Your task to perform on an android device: Add razer blade to the cart on newegg.com Image 0: 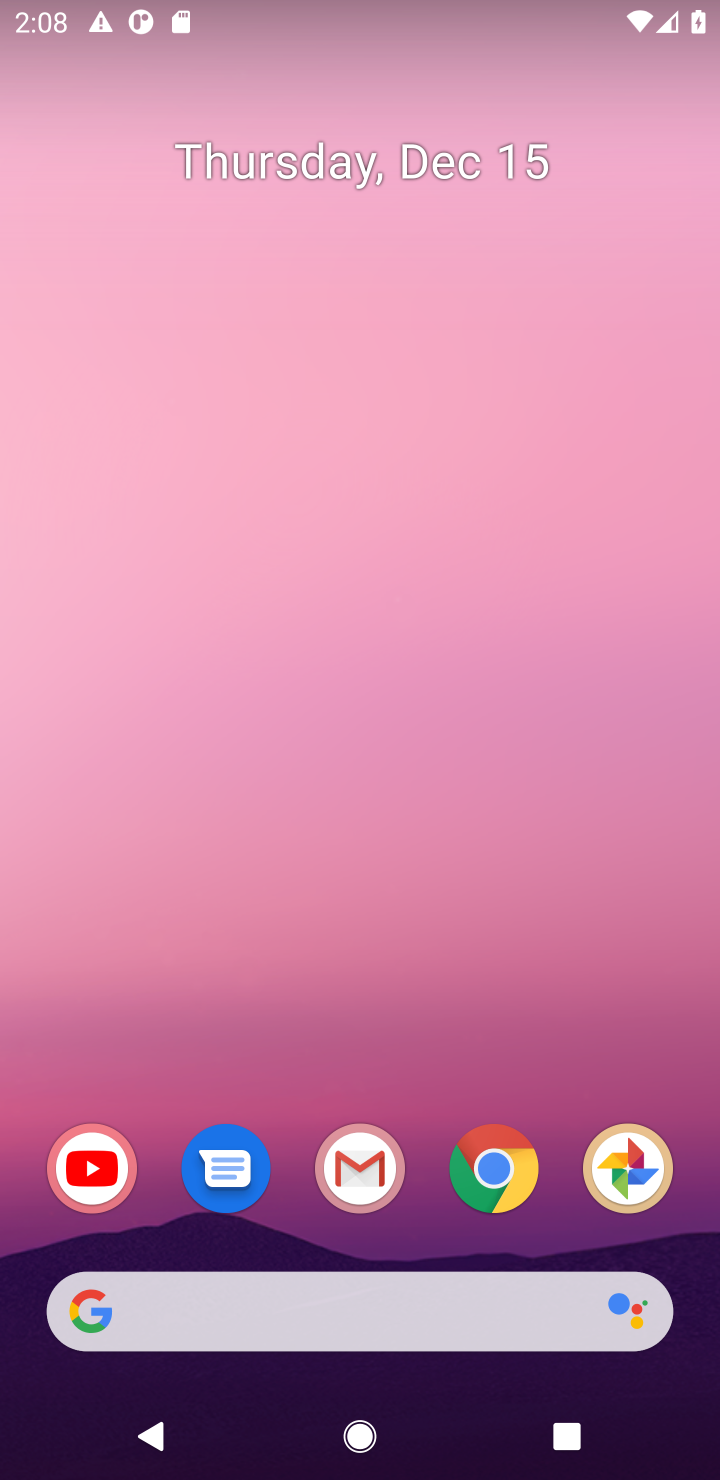
Step 0: click (492, 1189)
Your task to perform on an android device: Add razer blade to the cart on newegg.com Image 1: 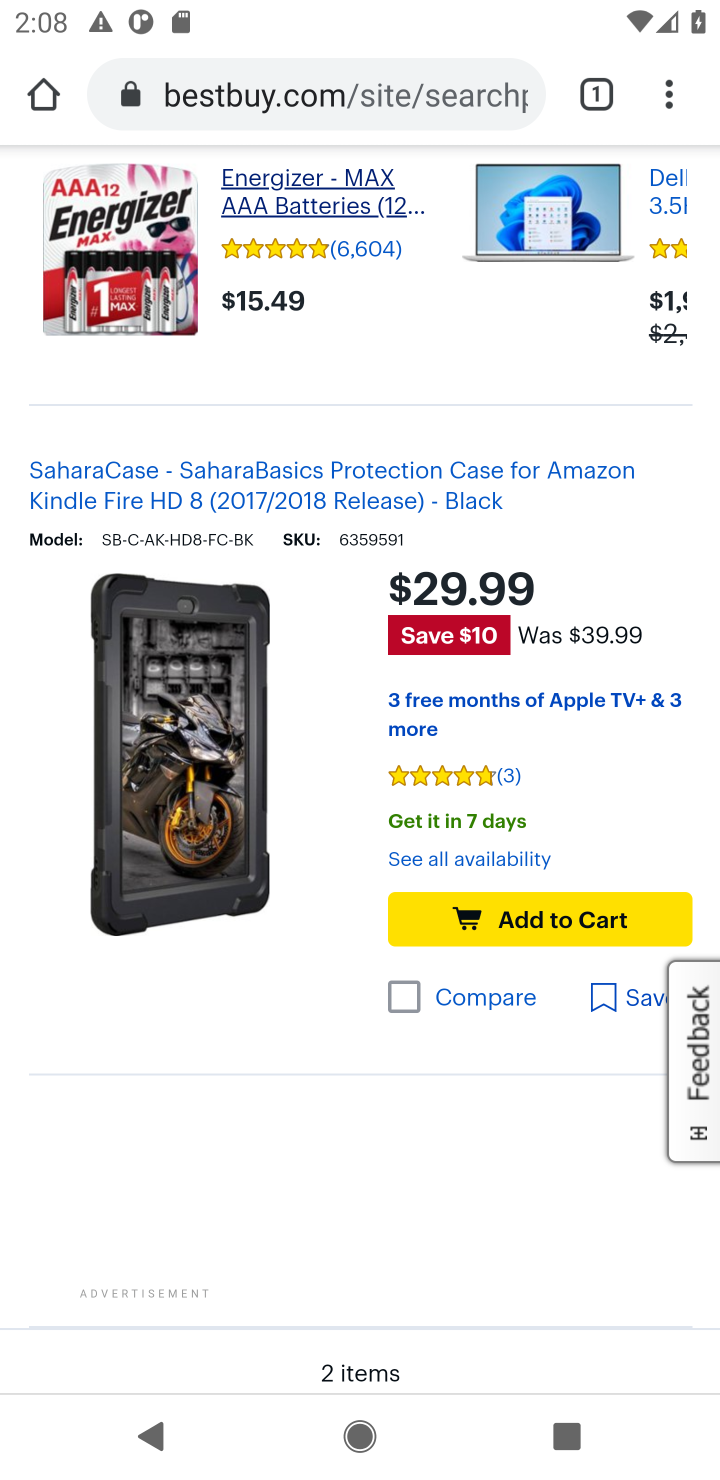
Step 1: click (263, 92)
Your task to perform on an android device: Add razer blade to the cart on newegg.com Image 2: 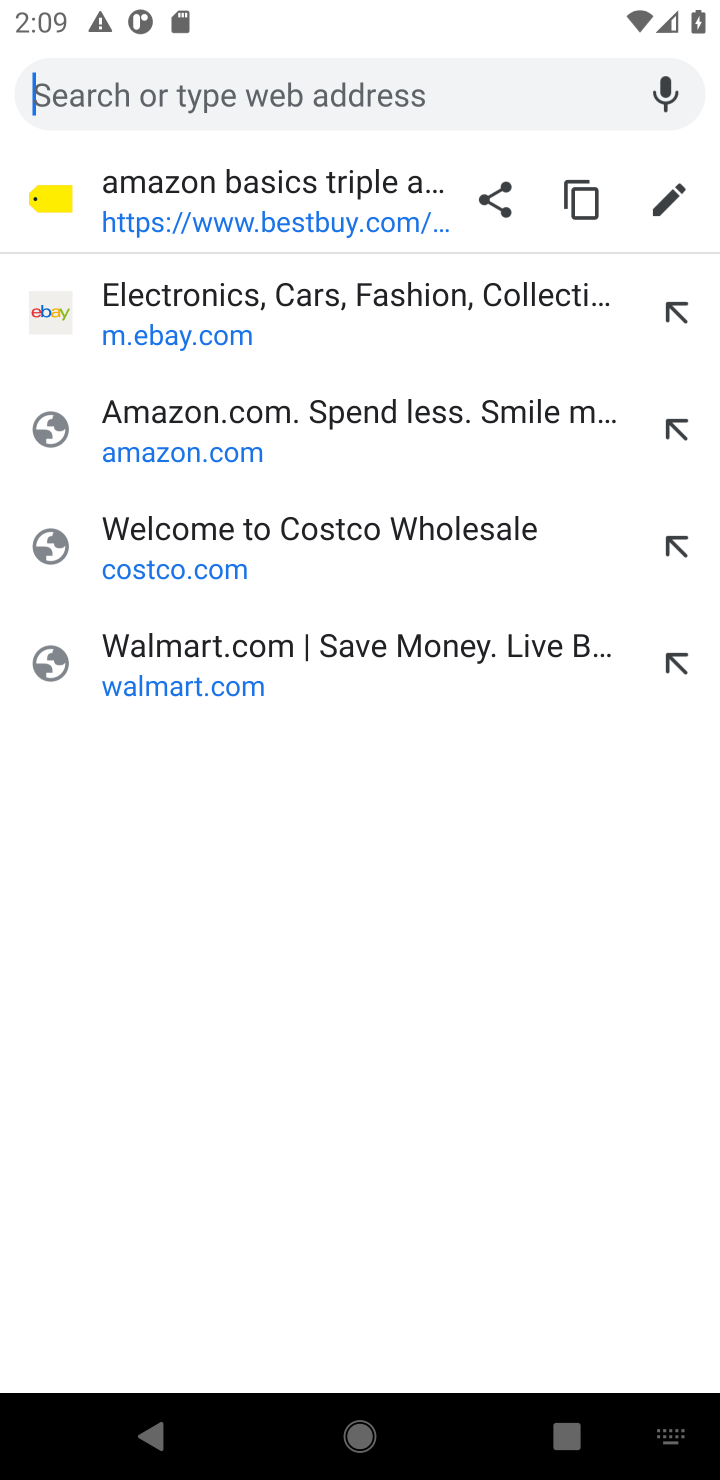
Step 2: type "newegg"
Your task to perform on an android device: Add razer blade to the cart on newegg.com Image 3: 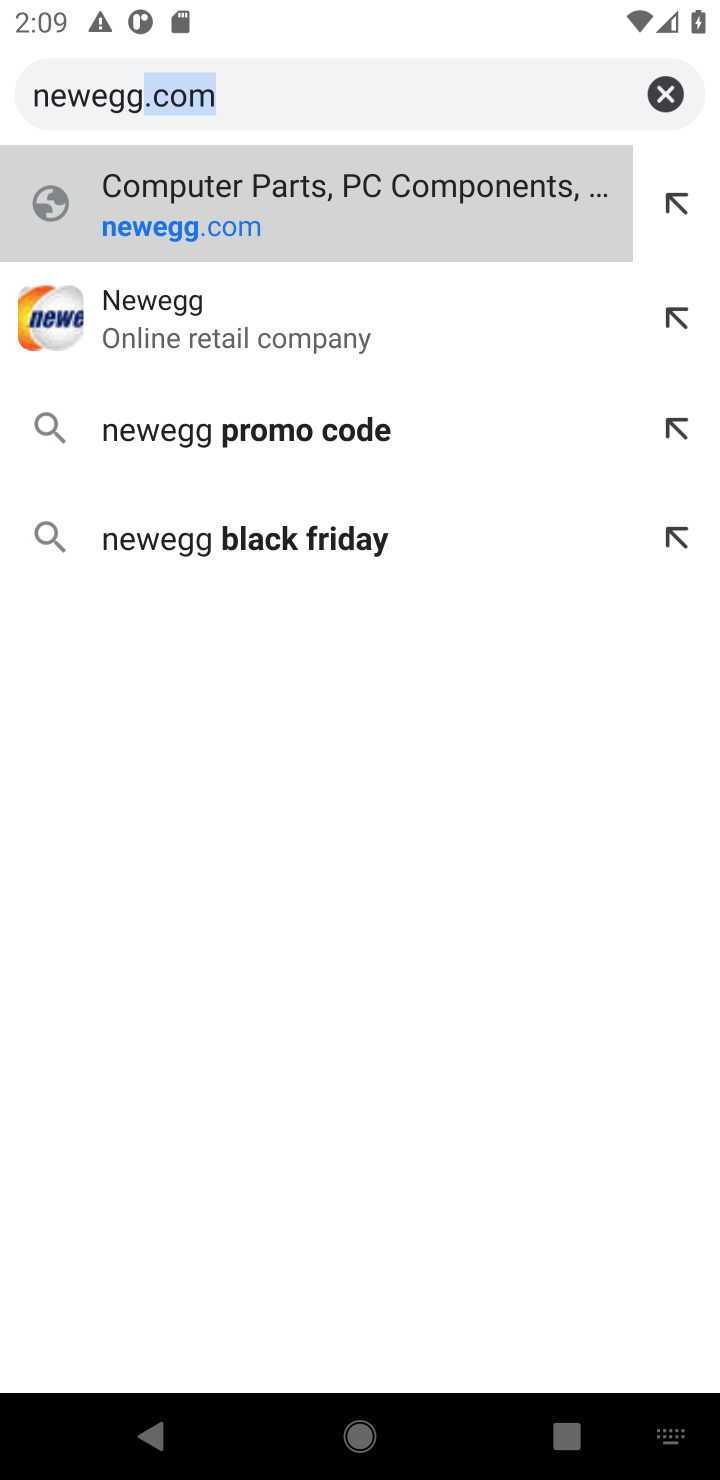
Step 3: click (299, 94)
Your task to perform on an android device: Add razer blade to the cart on newegg.com Image 4: 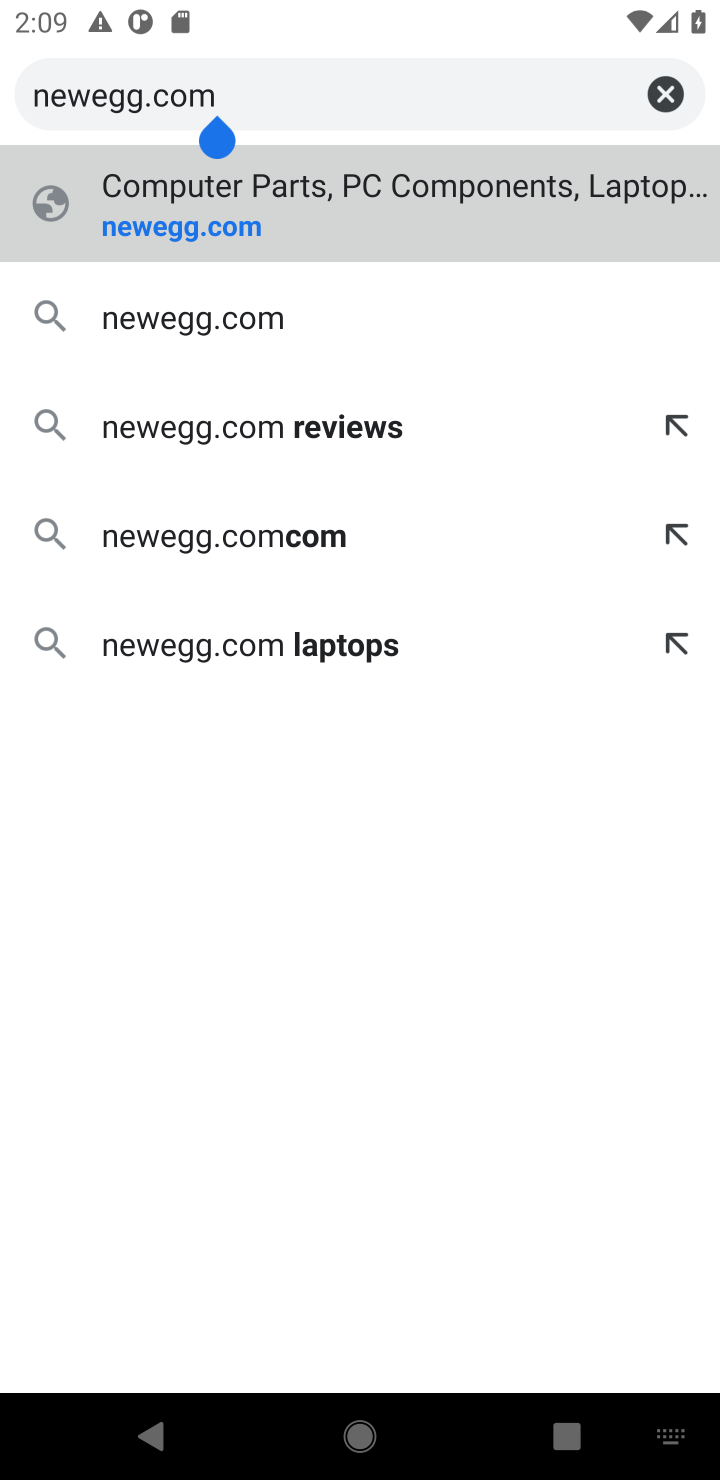
Step 4: click (171, 313)
Your task to perform on an android device: Add razer blade to the cart on newegg.com Image 5: 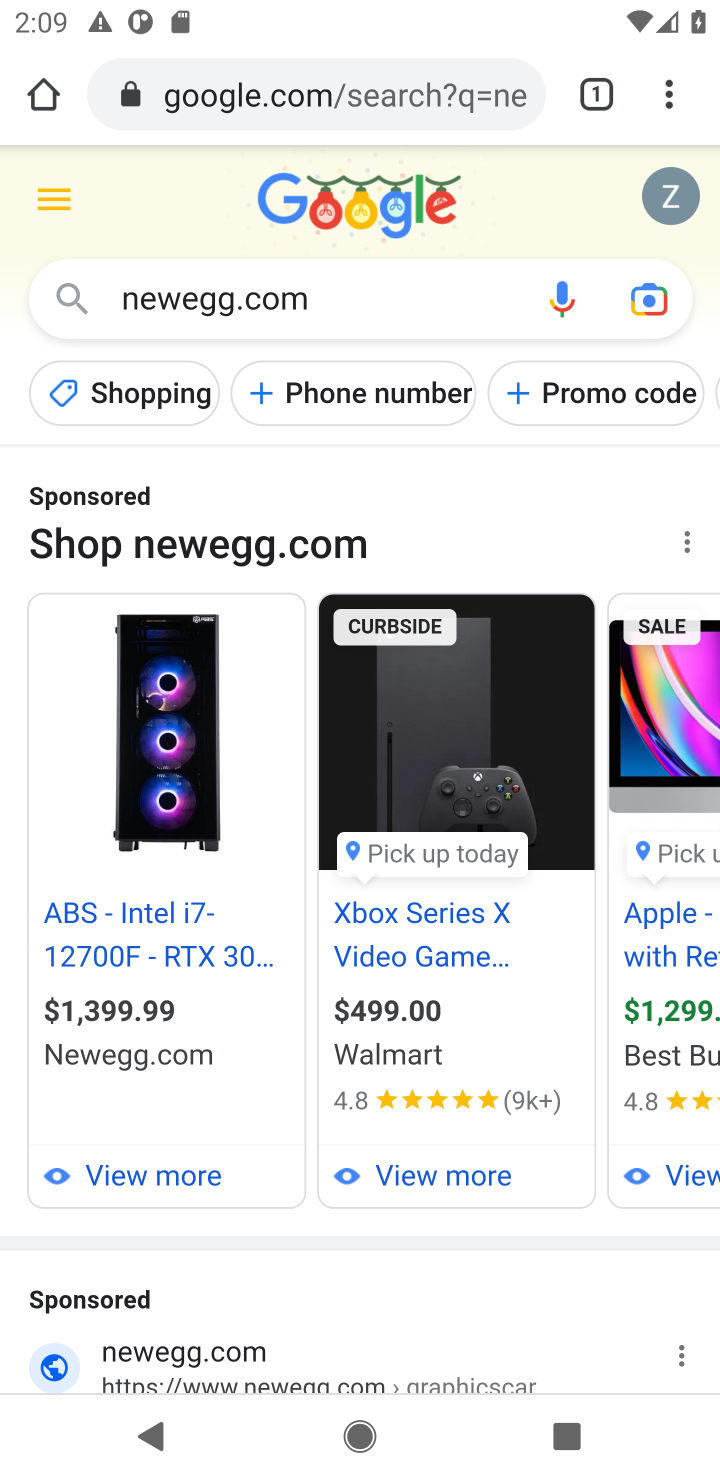
Step 5: click (237, 1349)
Your task to perform on an android device: Add razer blade to the cart on newegg.com Image 6: 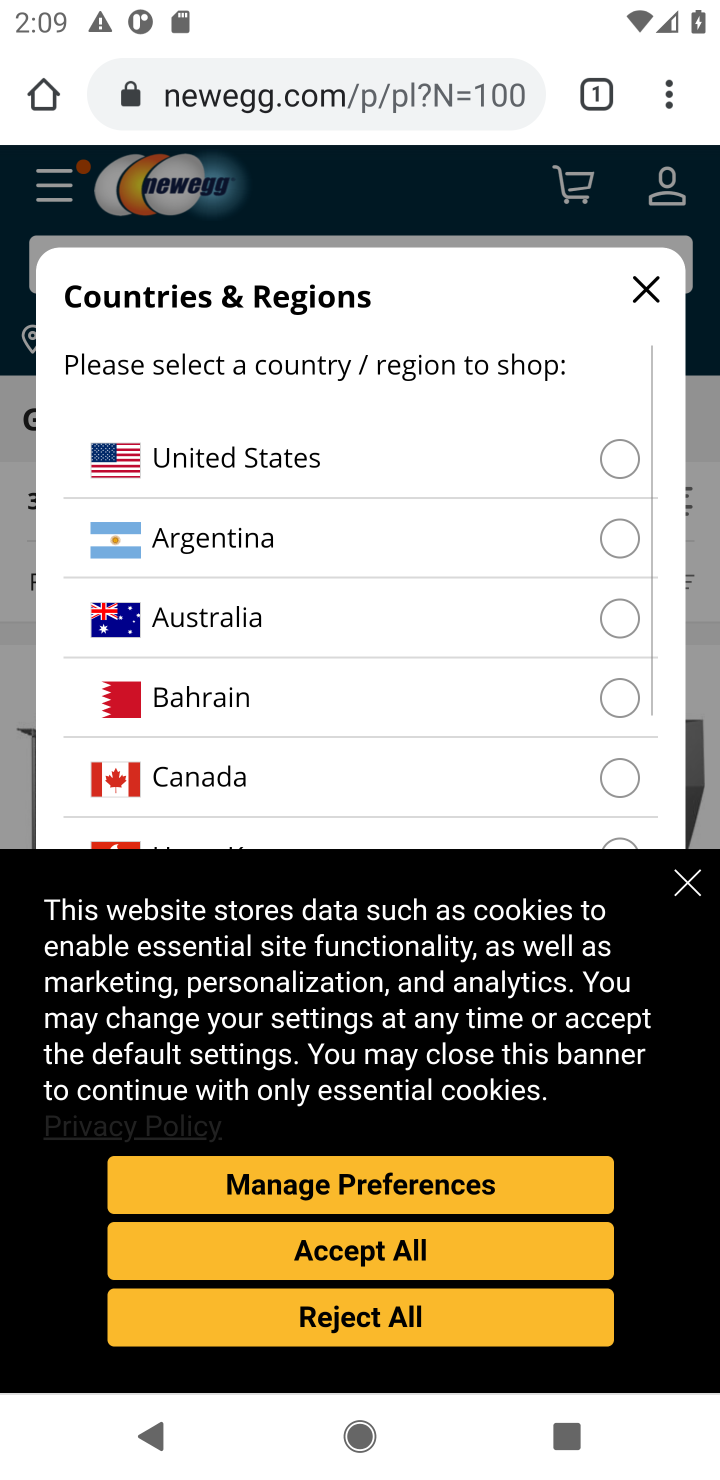
Step 6: click (321, 1243)
Your task to perform on an android device: Add razer blade to the cart on newegg.com Image 7: 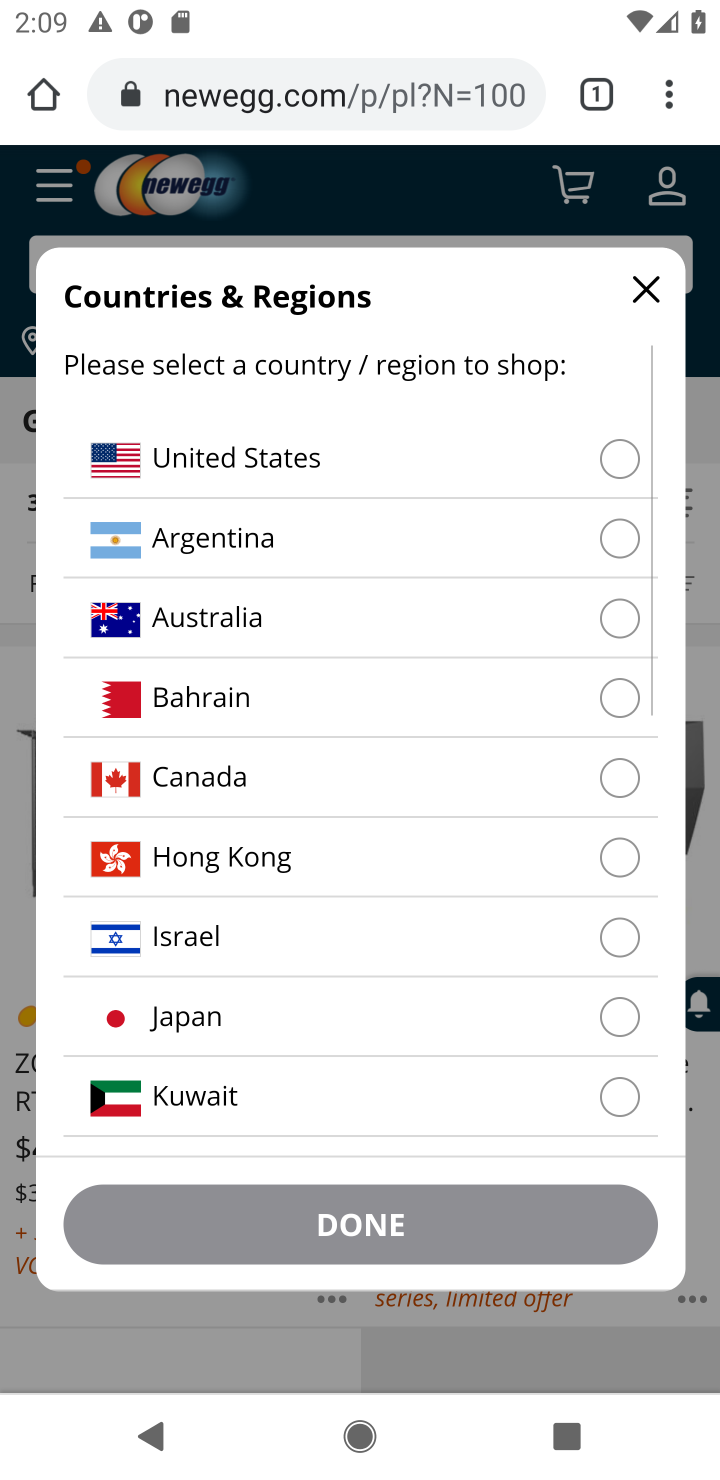
Step 7: click (632, 456)
Your task to perform on an android device: Add razer blade to the cart on newegg.com Image 8: 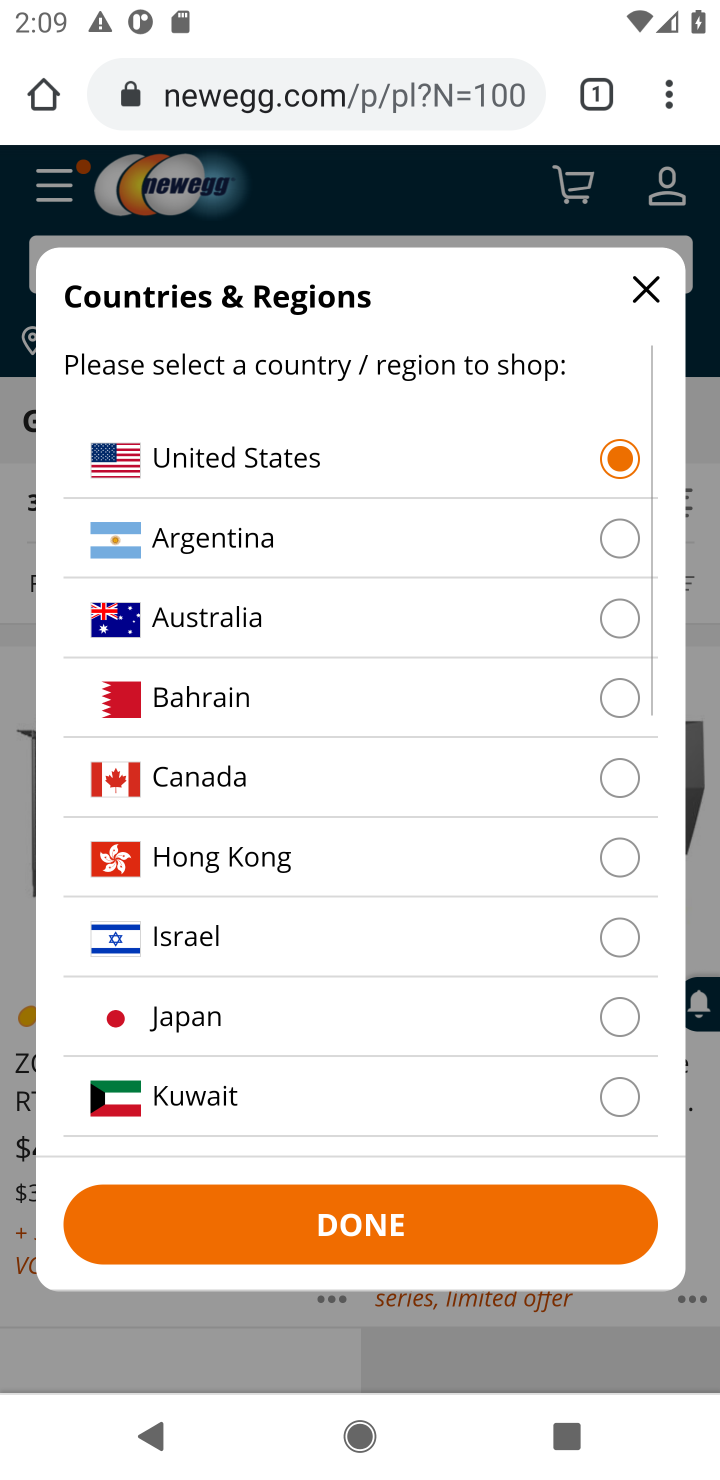
Step 8: click (376, 1227)
Your task to perform on an android device: Add razer blade to the cart on newegg.com Image 9: 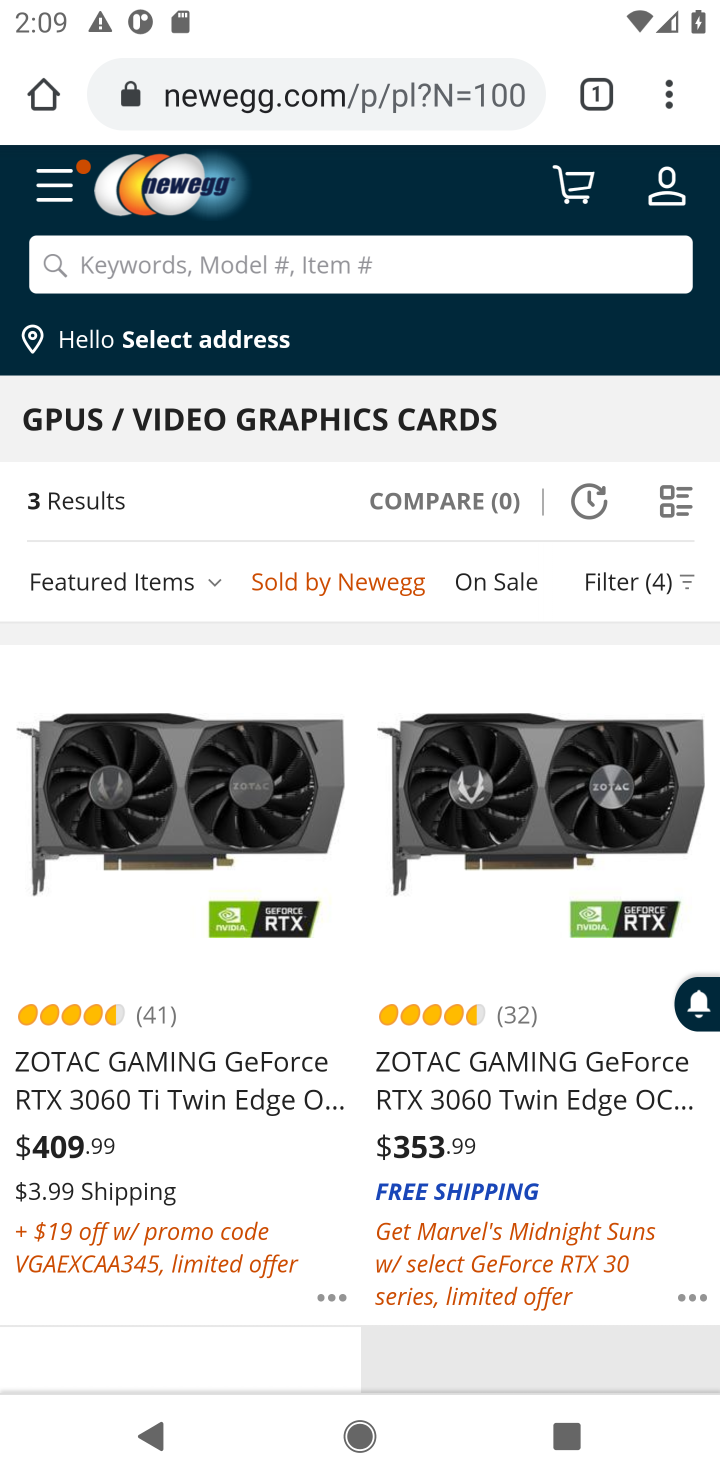
Step 9: click (390, 262)
Your task to perform on an android device: Add razer blade to the cart on newegg.com Image 10: 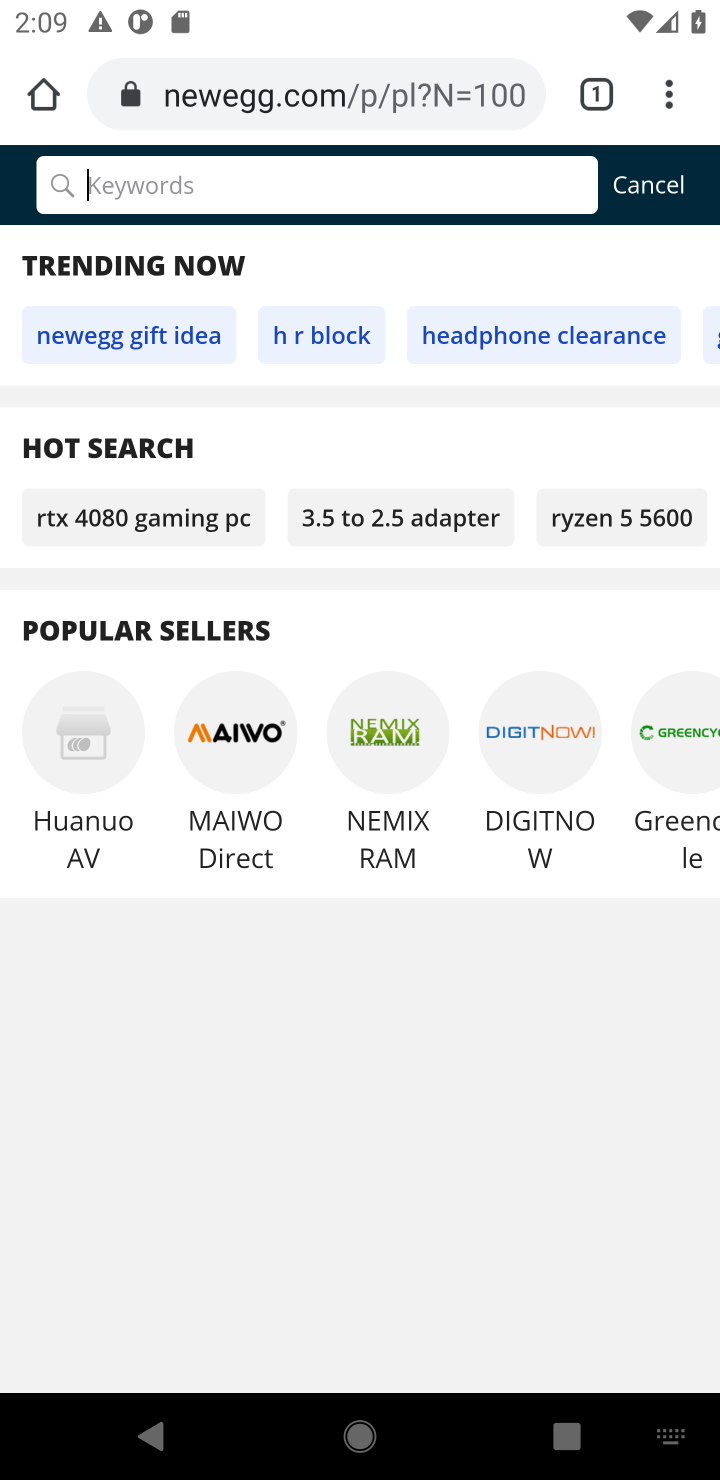
Step 10: type " razer blade"
Your task to perform on an android device: Add razer blade to the cart on newegg.com Image 11: 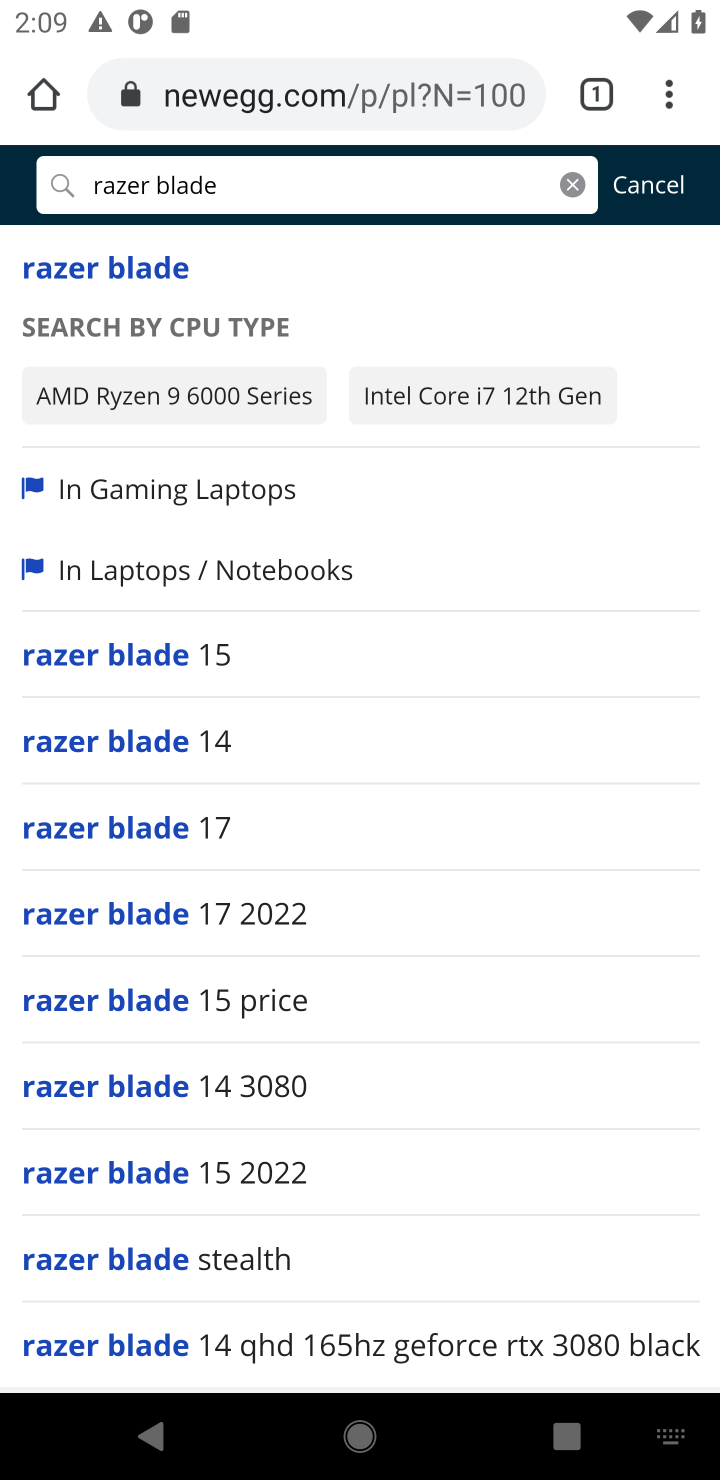
Step 11: click (107, 277)
Your task to perform on an android device: Add razer blade to the cart on newegg.com Image 12: 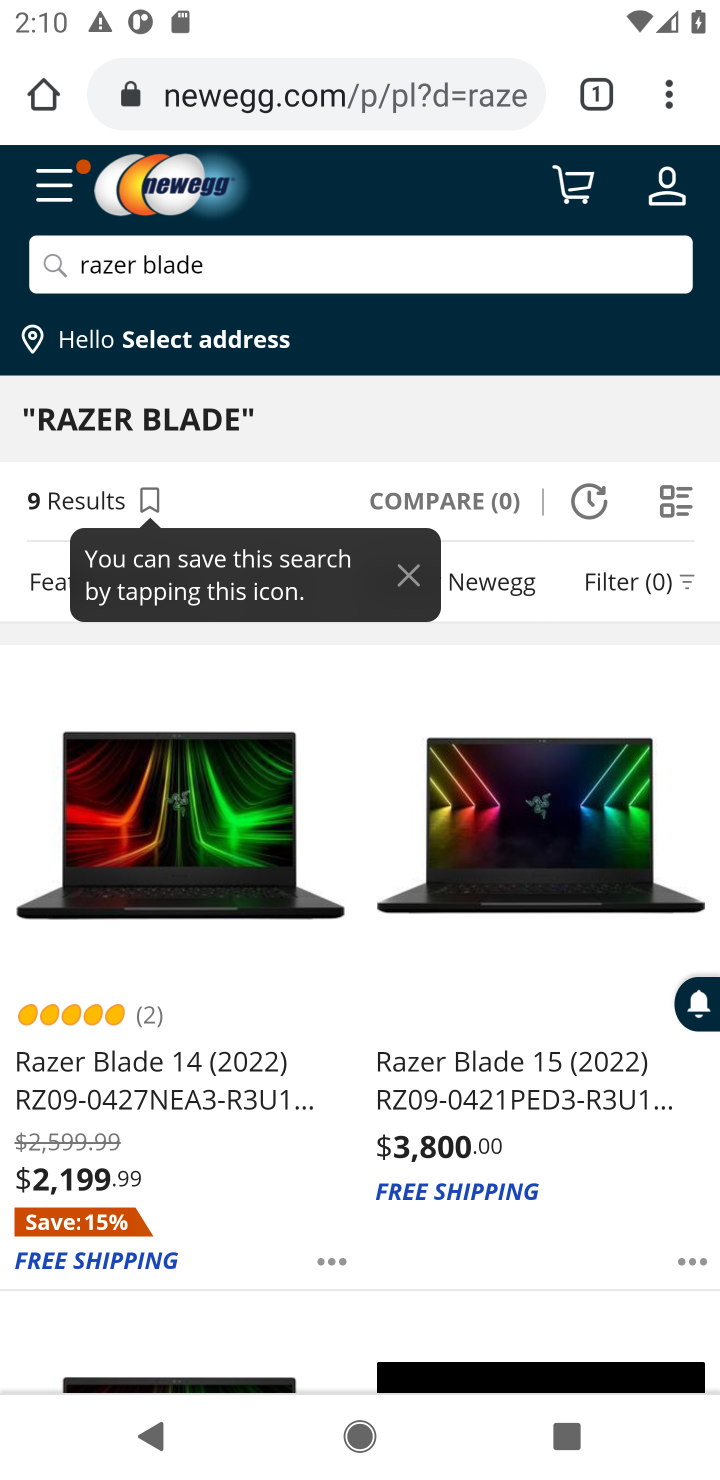
Step 12: click (189, 783)
Your task to perform on an android device: Add razer blade to the cart on newegg.com Image 13: 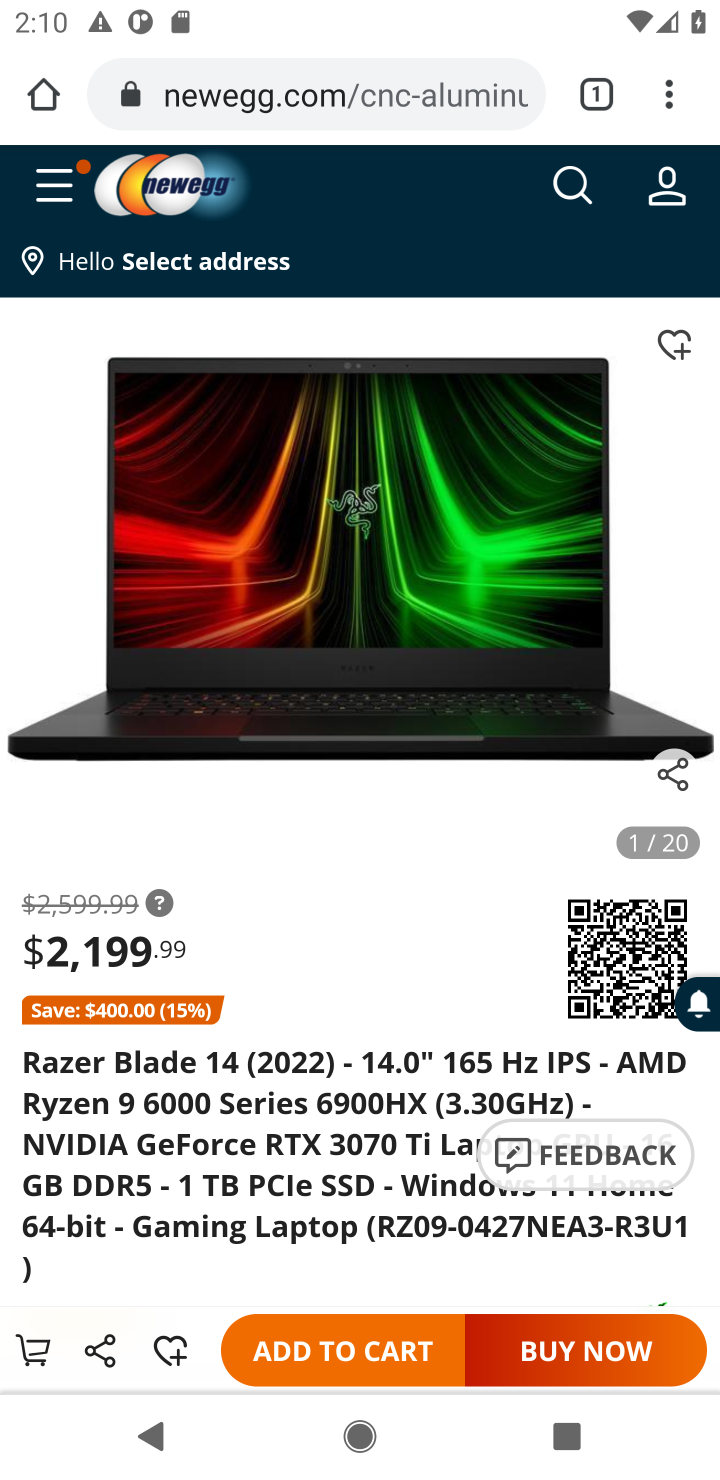
Step 13: click (342, 1356)
Your task to perform on an android device: Add razer blade to the cart on newegg.com Image 14: 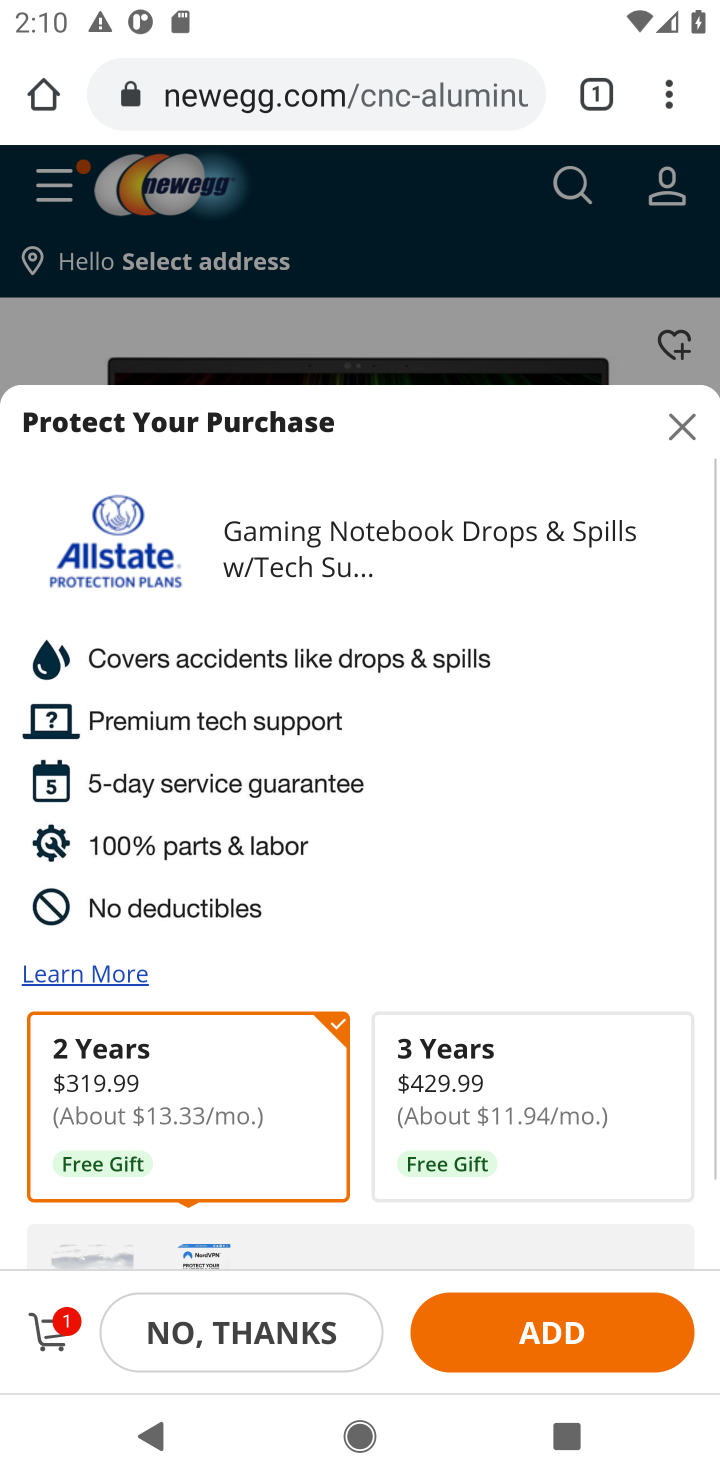
Step 14: task complete